Your task to perform on an android device: set an alarm Image 0: 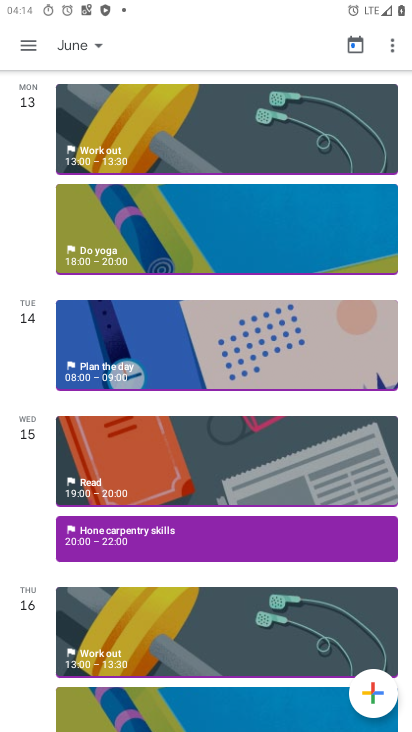
Step 0: press home button
Your task to perform on an android device: set an alarm Image 1: 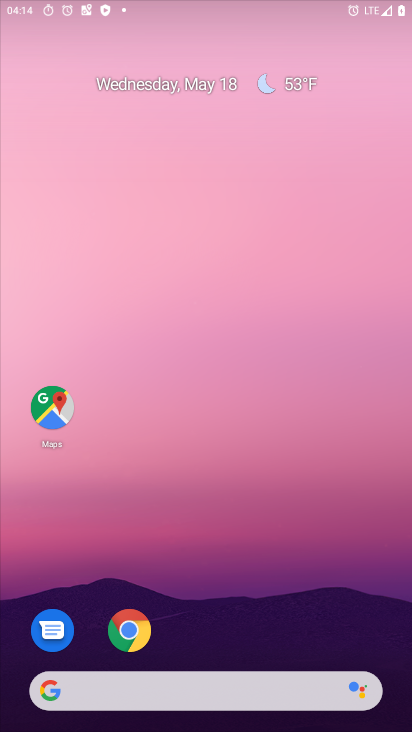
Step 1: drag from (218, 729) to (234, 228)
Your task to perform on an android device: set an alarm Image 2: 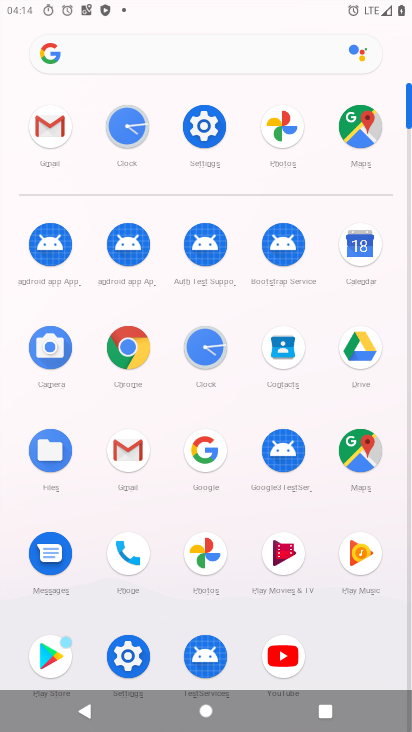
Step 2: click (204, 335)
Your task to perform on an android device: set an alarm Image 3: 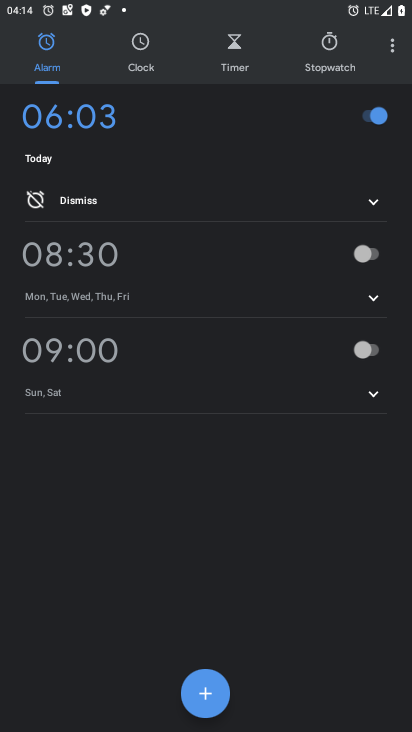
Step 3: click (193, 688)
Your task to perform on an android device: set an alarm Image 4: 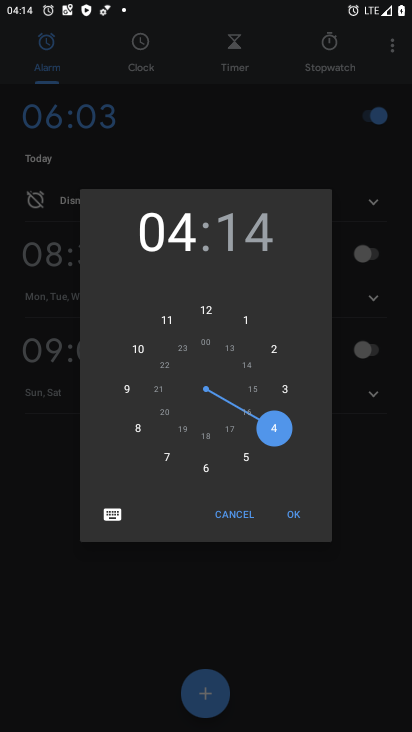
Step 4: click (143, 430)
Your task to perform on an android device: set an alarm Image 5: 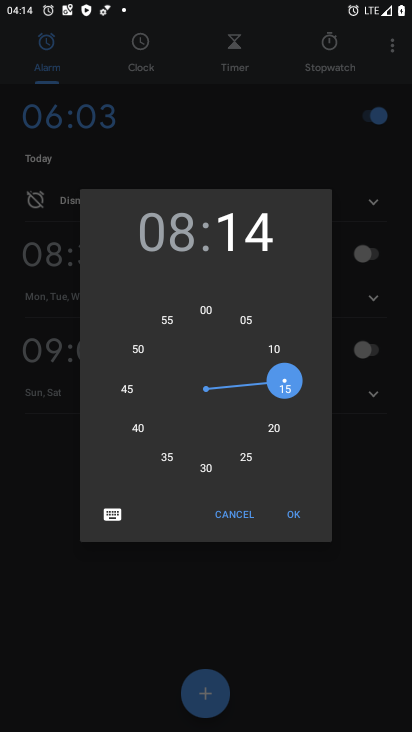
Step 5: click (286, 512)
Your task to perform on an android device: set an alarm Image 6: 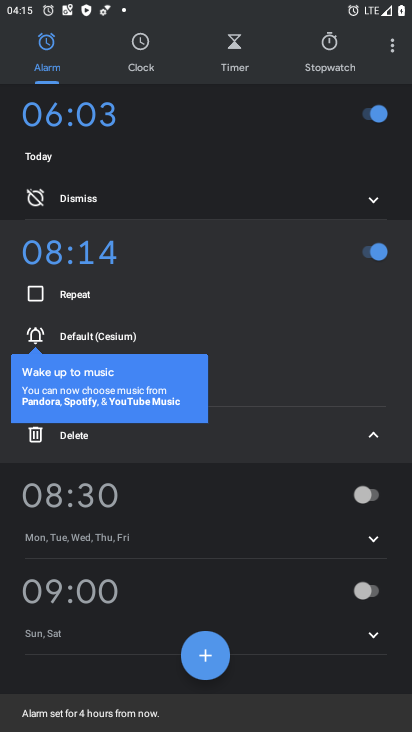
Step 6: task complete